Your task to perform on an android device: Check the news Image 0: 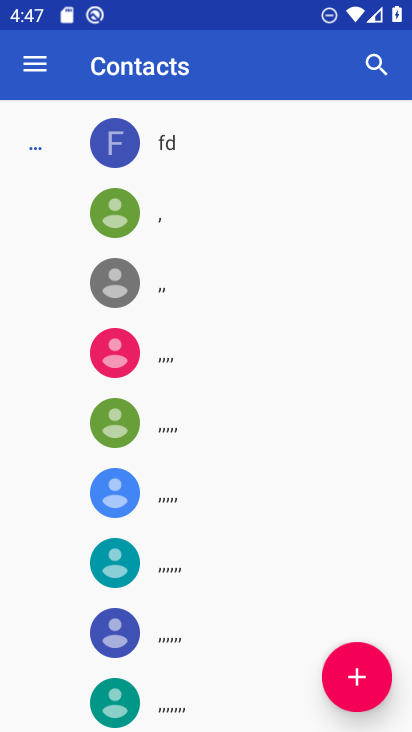
Step 0: press home button
Your task to perform on an android device: Check the news Image 1: 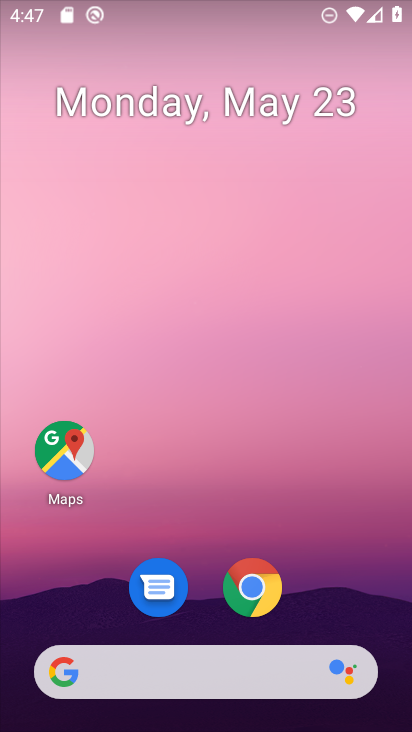
Step 1: drag from (204, 621) to (251, 1)
Your task to perform on an android device: Check the news Image 2: 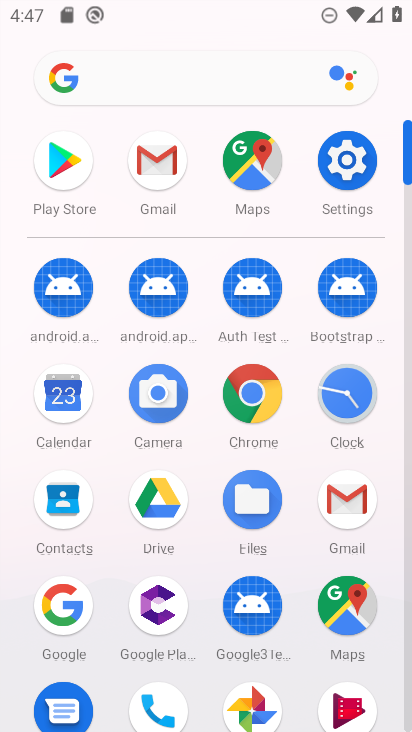
Step 2: click (159, 86)
Your task to perform on an android device: Check the news Image 3: 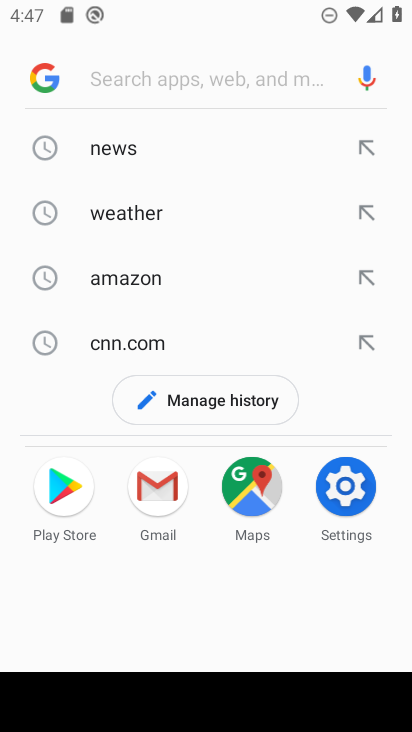
Step 3: click (148, 146)
Your task to perform on an android device: Check the news Image 4: 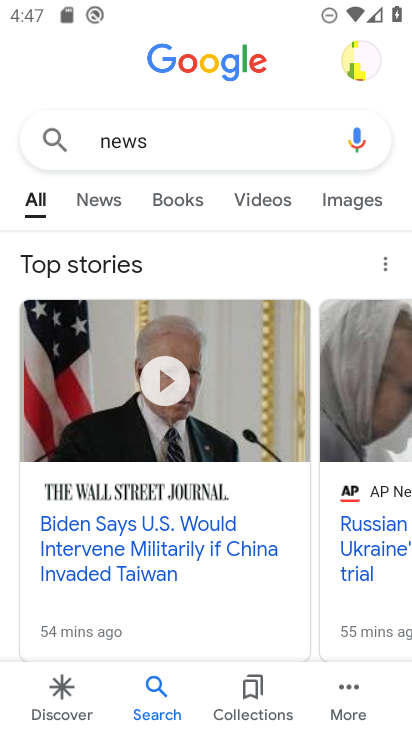
Step 4: task complete